Your task to perform on an android device: Search for Mexican restaurants on Maps Image 0: 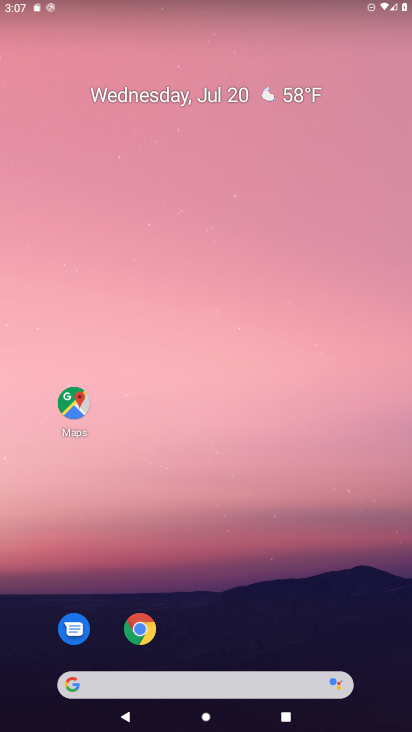
Step 0: drag from (307, 630) to (286, 135)
Your task to perform on an android device: Search for Mexican restaurants on Maps Image 1: 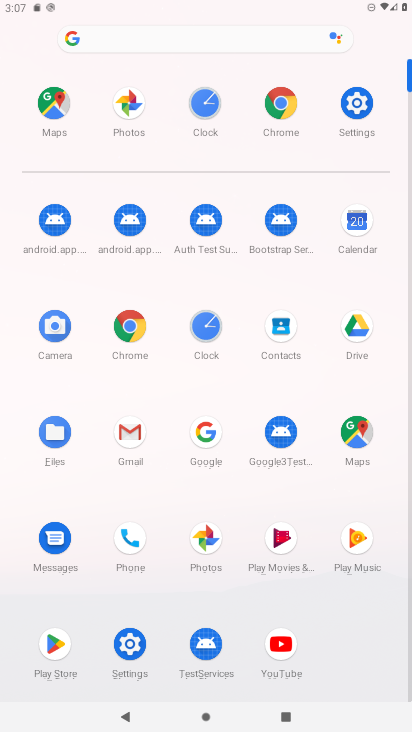
Step 1: click (349, 429)
Your task to perform on an android device: Search for Mexican restaurants on Maps Image 2: 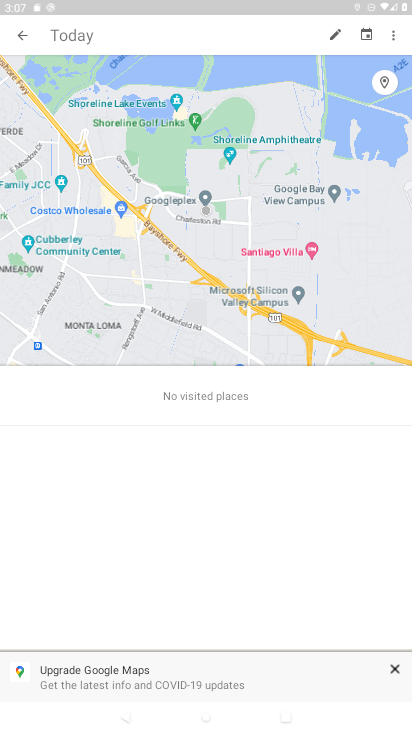
Step 2: click (21, 34)
Your task to perform on an android device: Search for Mexican restaurants on Maps Image 3: 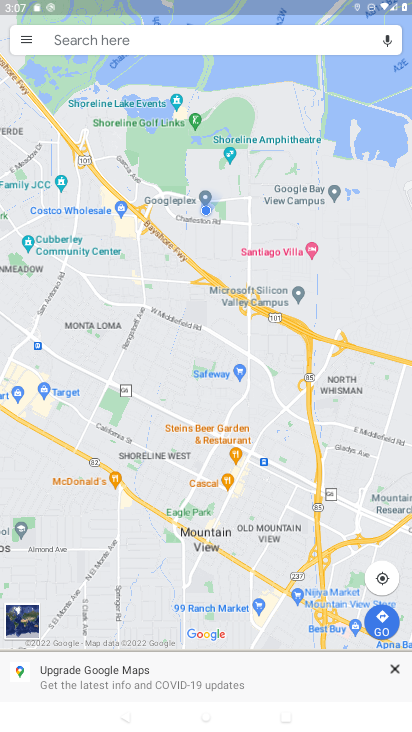
Step 3: click (110, 36)
Your task to perform on an android device: Search for Mexican restaurants on Maps Image 4: 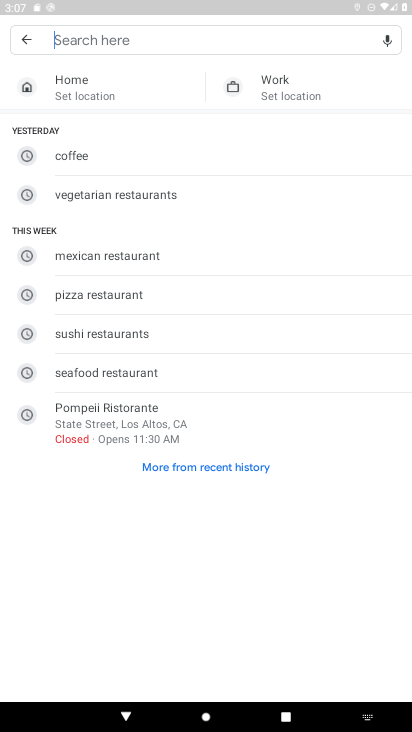
Step 4: type " Mexican restaurants "
Your task to perform on an android device: Search for Mexican restaurants on Maps Image 5: 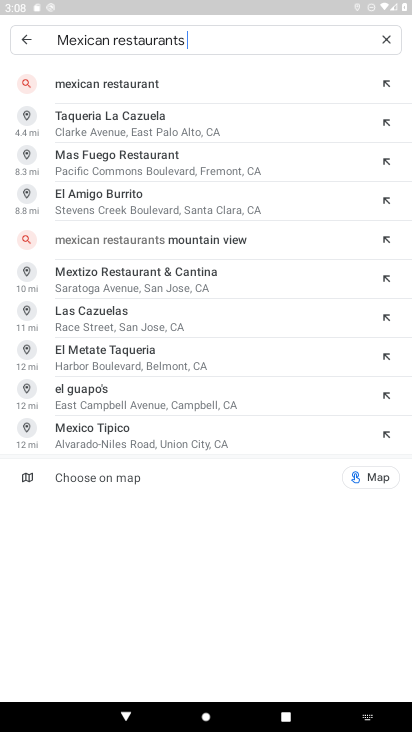
Step 5: click (127, 91)
Your task to perform on an android device: Search for Mexican restaurants on Maps Image 6: 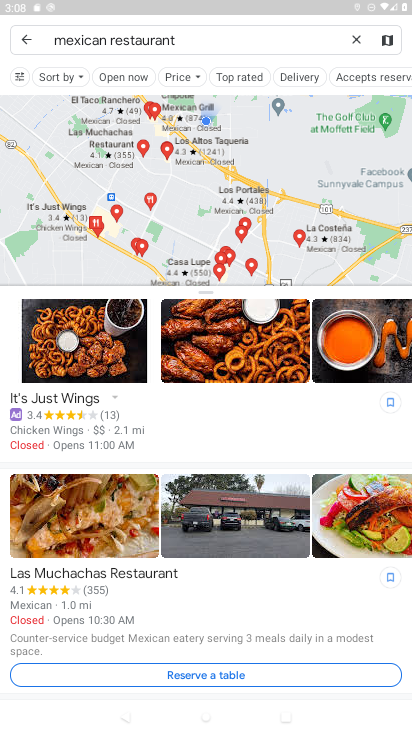
Step 6: task complete